Your task to perform on an android device: remove spam from my inbox in the gmail app Image 0: 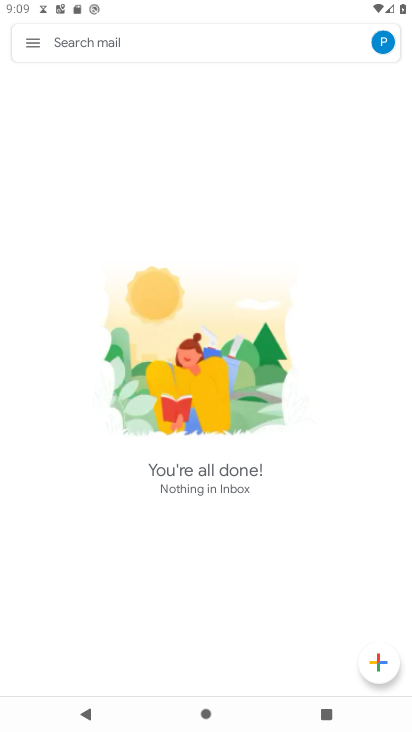
Step 0: press home button
Your task to perform on an android device: remove spam from my inbox in the gmail app Image 1: 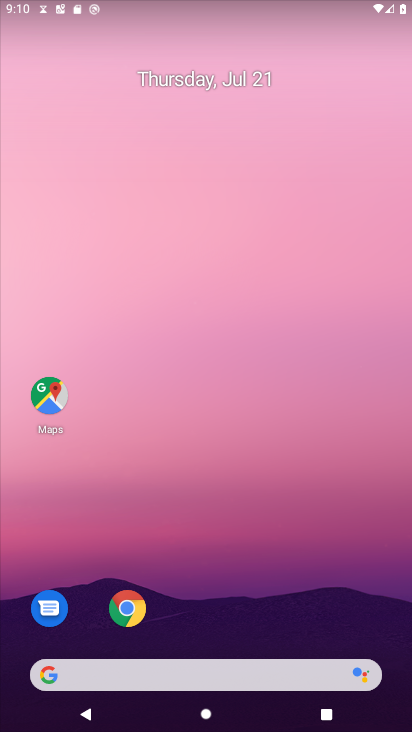
Step 1: drag from (197, 627) to (142, 6)
Your task to perform on an android device: remove spam from my inbox in the gmail app Image 2: 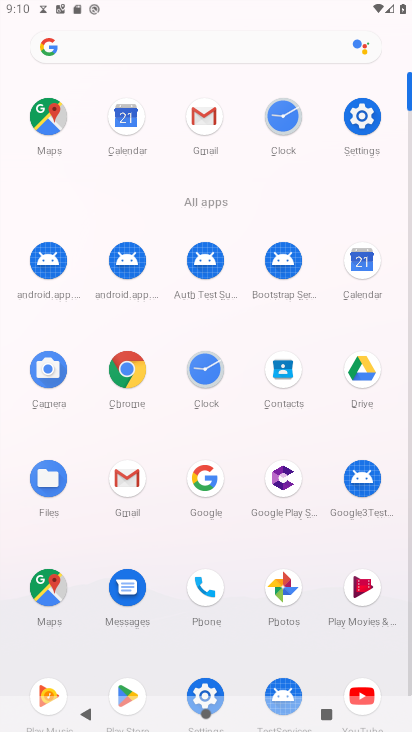
Step 2: click (191, 137)
Your task to perform on an android device: remove spam from my inbox in the gmail app Image 3: 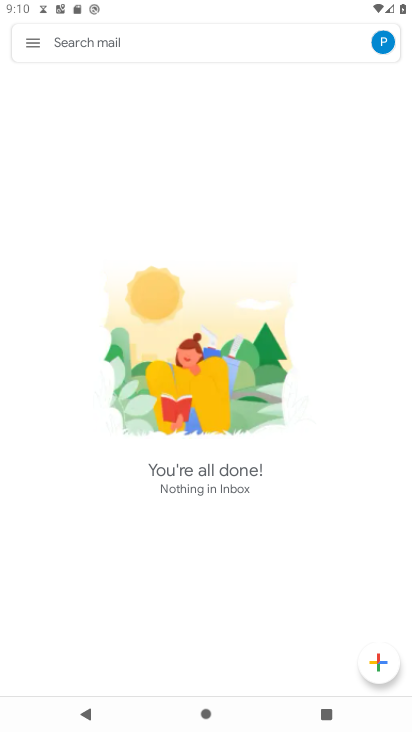
Step 3: click (35, 41)
Your task to perform on an android device: remove spam from my inbox in the gmail app Image 4: 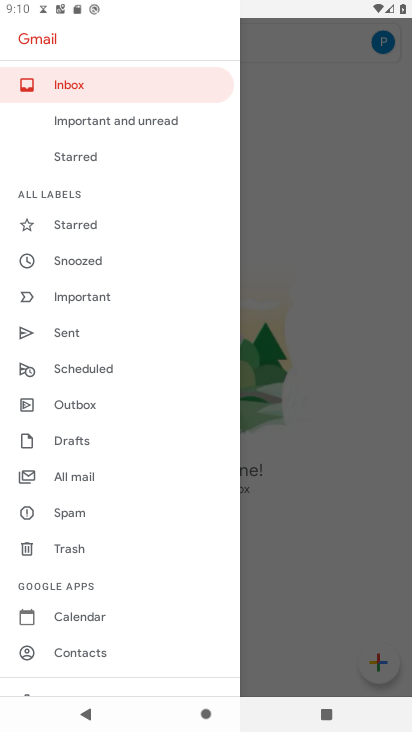
Step 4: click (68, 509)
Your task to perform on an android device: remove spam from my inbox in the gmail app Image 5: 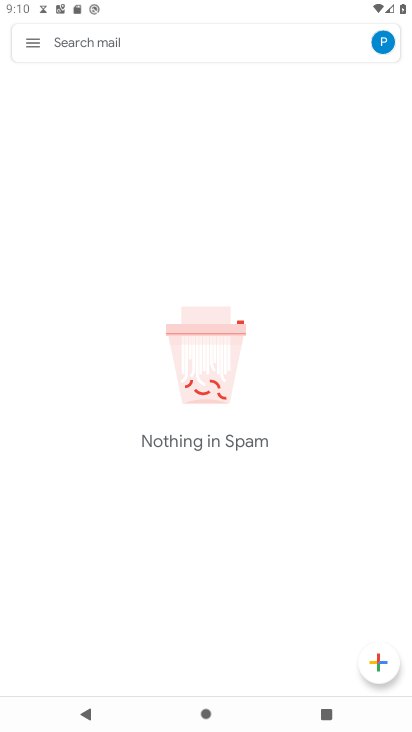
Step 5: task complete